Your task to perform on an android device: uninstall "LinkedIn" Image 0: 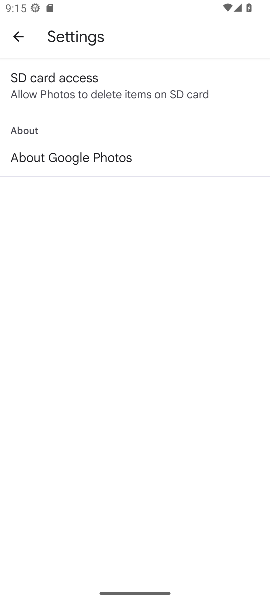
Step 0: click (219, 484)
Your task to perform on an android device: uninstall "LinkedIn" Image 1: 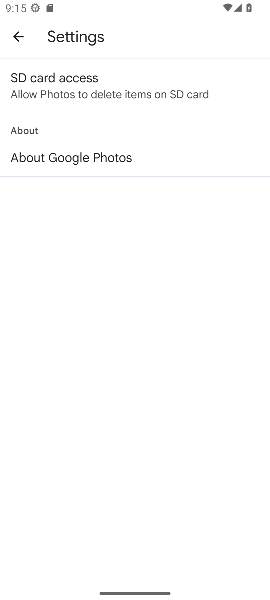
Step 1: click (13, 49)
Your task to perform on an android device: uninstall "LinkedIn" Image 2: 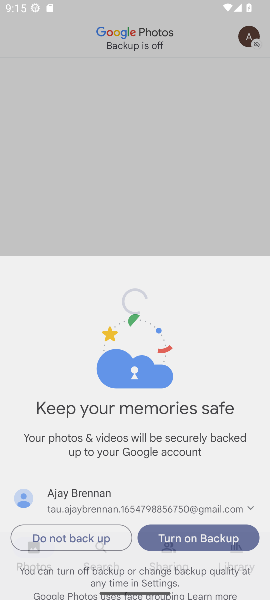
Step 2: press home button
Your task to perform on an android device: uninstall "LinkedIn" Image 3: 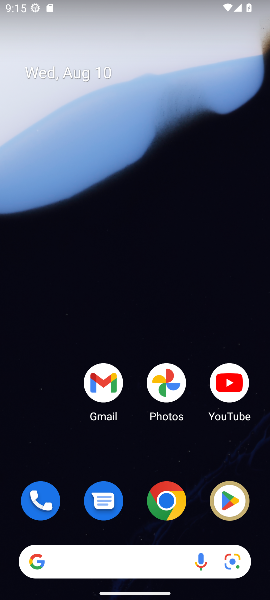
Step 3: click (224, 513)
Your task to perform on an android device: uninstall "LinkedIn" Image 4: 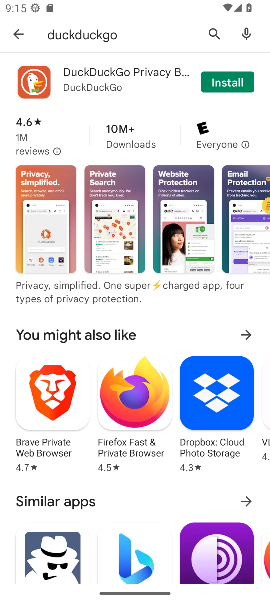
Step 4: click (209, 37)
Your task to perform on an android device: uninstall "LinkedIn" Image 5: 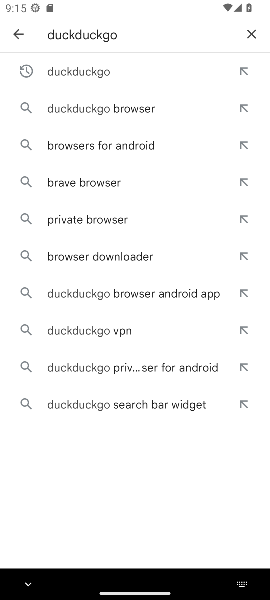
Step 5: click (243, 35)
Your task to perform on an android device: uninstall "LinkedIn" Image 6: 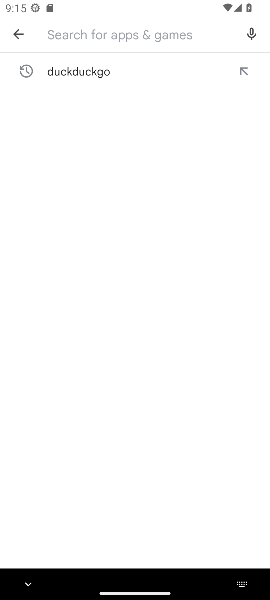
Step 6: type "linkedin"
Your task to perform on an android device: uninstall "LinkedIn" Image 7: 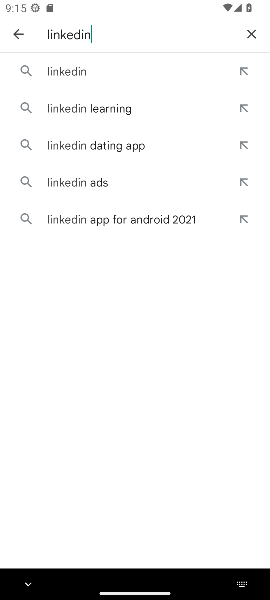
Step 7: click (154, 75)
Your task to perform on an android device: uninstall "LinkedIn" Image 8: 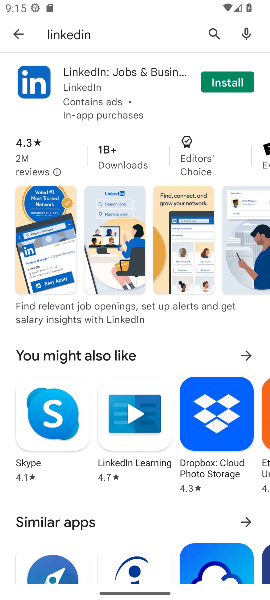
Step 8: click (228, 86)
Your task to perform on an android device: uninstall "LinkedIn" Image 9: 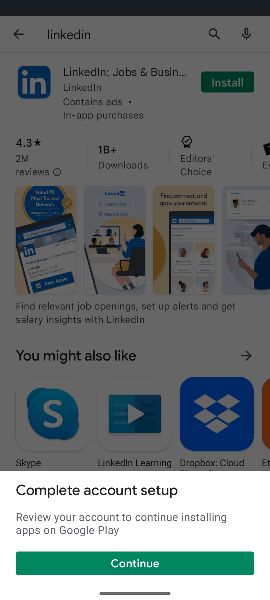
Step 9: click (141, 572)
Your task to perform on an android device: uninstall "LinkedIn" Image 10: 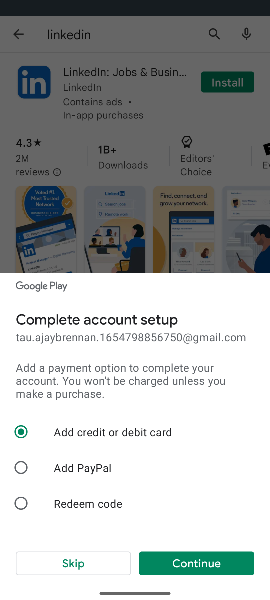
Step 10: click (77, 558)
Your task to perform on an android device: uninstall "LinkedIn" Image 11: 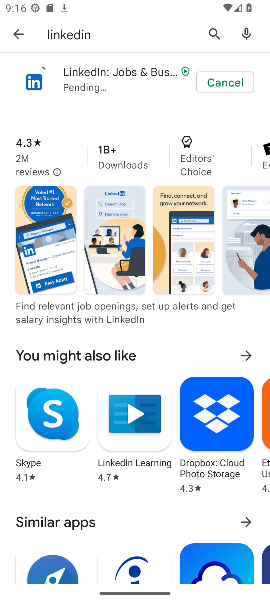
Step 11: task complete